Your task to perform on an android device: Go to location settings Image 0: 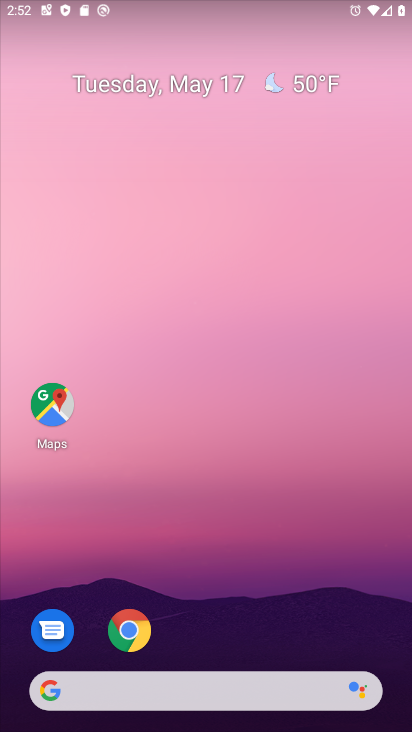
Step 0: drag from (196, 667) to (202, 317)
Your task to perform on an android device: Go to location settings Image 1: 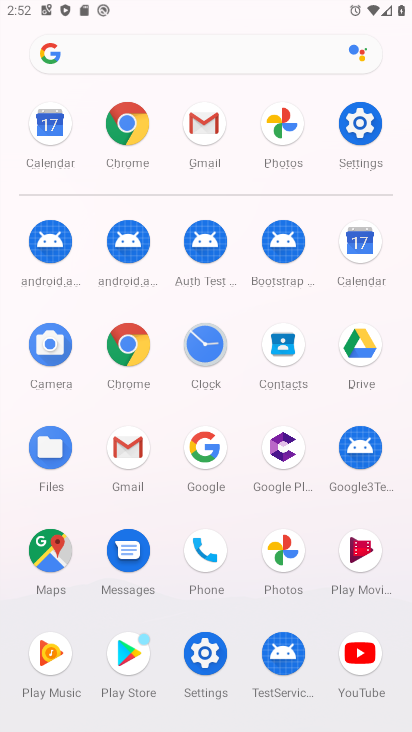
Step 1: click (200, 654)
Your task to perform on an android device: Go to location settings Image 2: 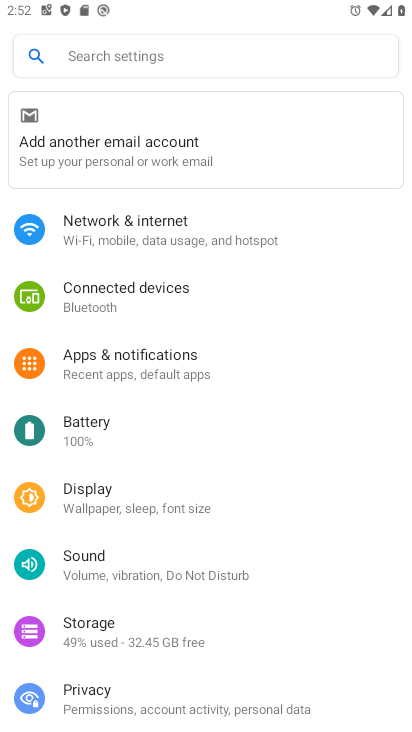
Step 2: drag from (108, 701) to (120, 71)
Your task to perform on an android device: Go to location settings Image 3: 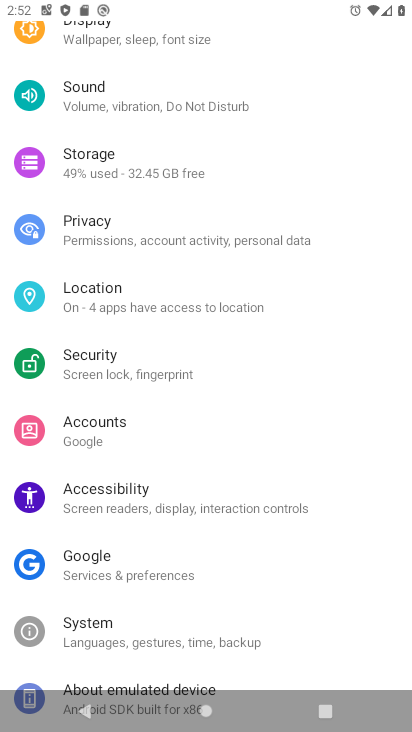
Step 3: click (126, 310)
Your task to perform on an android device: Go to location settings Image 4: 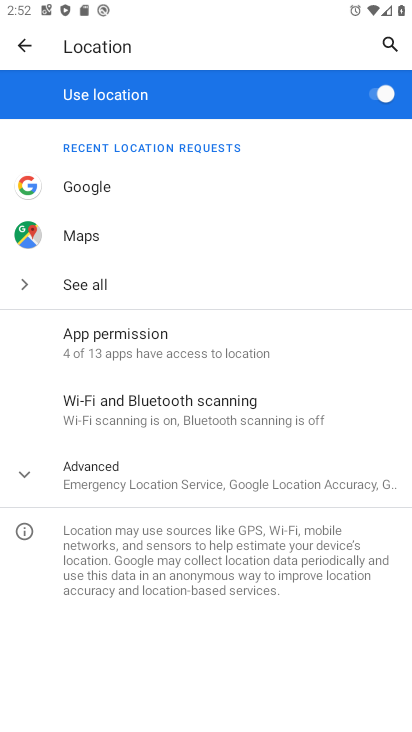
Step 4: click (128, 480)
Your task to perform on an android device: Go to location settings Image 5: 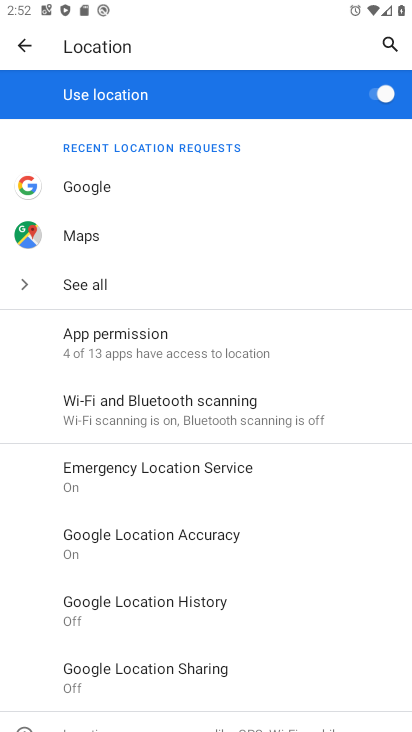
Step 5: task complete